Your task to perform on an android device: Go to CNN.com Image 0: 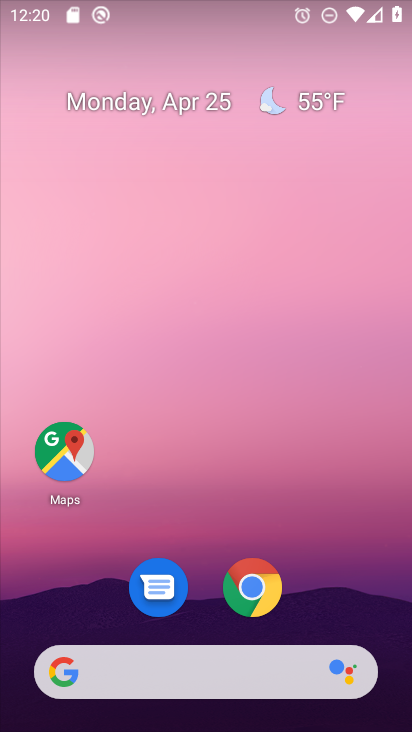
Step 0: drag from (309, 569) to (296, 55)
Your task to perform on an android device: Go to CNN.com Image 1: 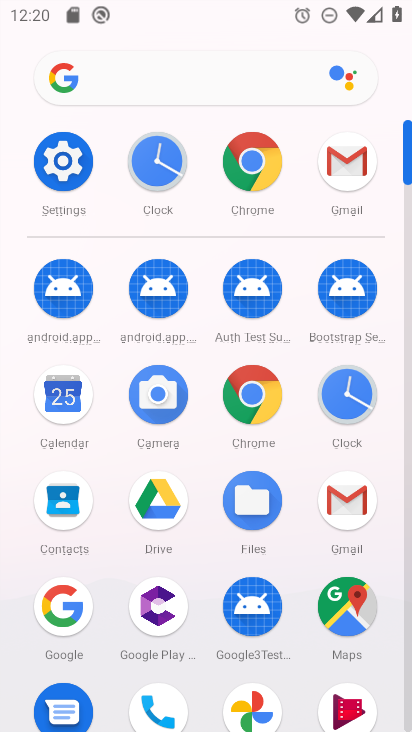
Step 1: click (234, 394)
Your task to perform on an android device: Go to CNN.com Image 2: 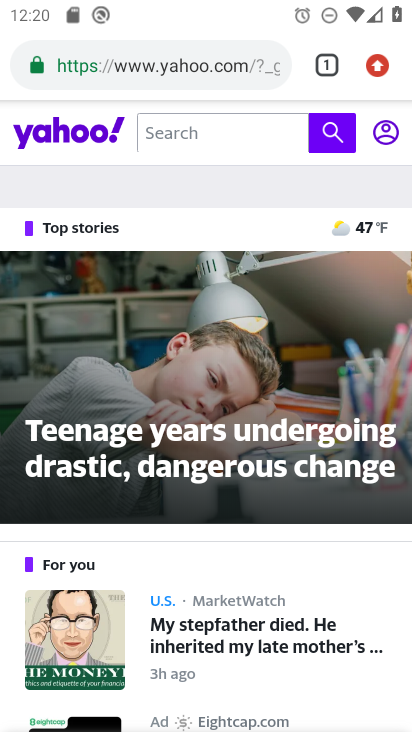
Step 2: click (205, 63)
Your task to perform on an android device: Go to CNN.com Image 3: 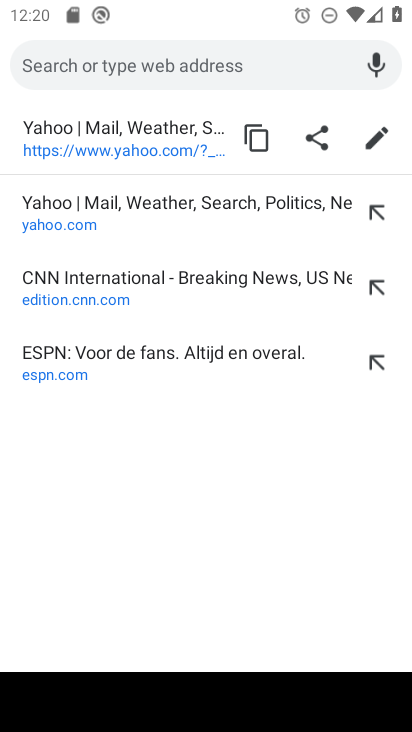
Step 3: type "cnn.com"
Your task to perform on an android device: Go to CNN.com Image 4: 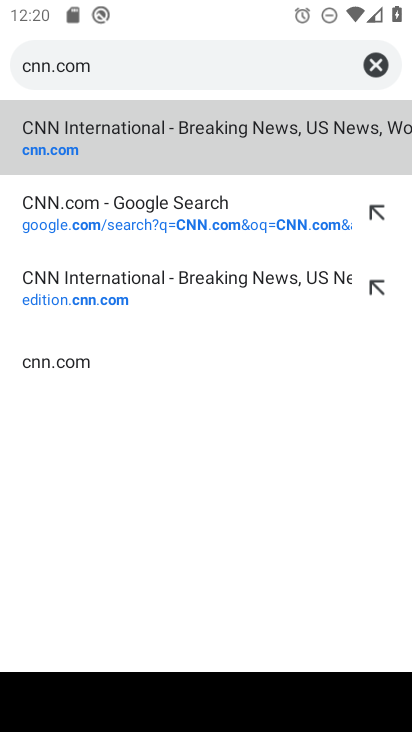
Step 4: click (73, 152)
Your task to perform on an android device: Go to CNN.com Image 5: 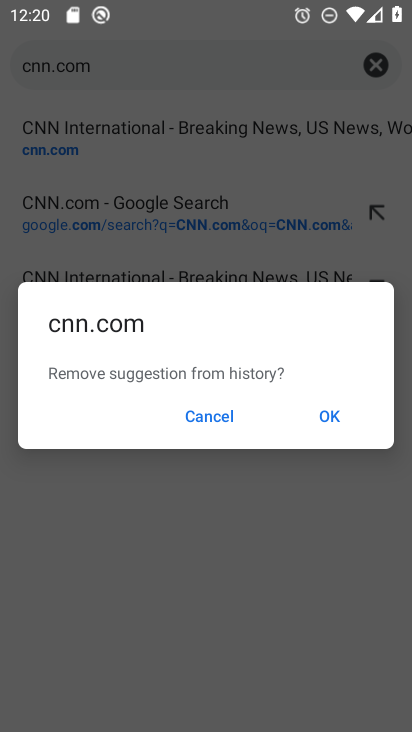
Step 5: click (214, 415)
Your task to perform on an android device: Go to CNN.com Image 6: 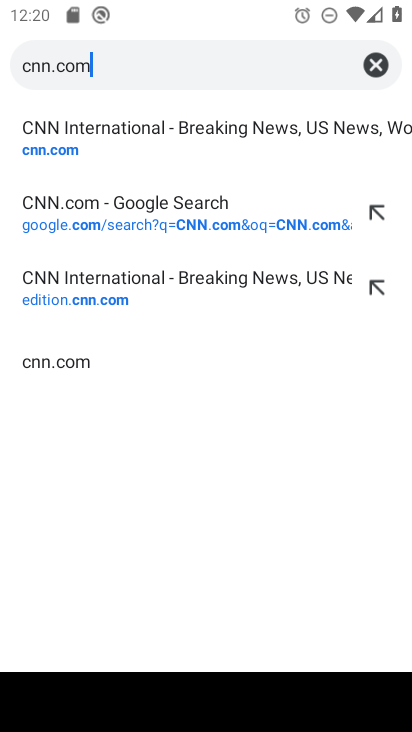
Step 6: click (33, 150)
Your task to perform on an android device: Go to CNN.com Image 7: 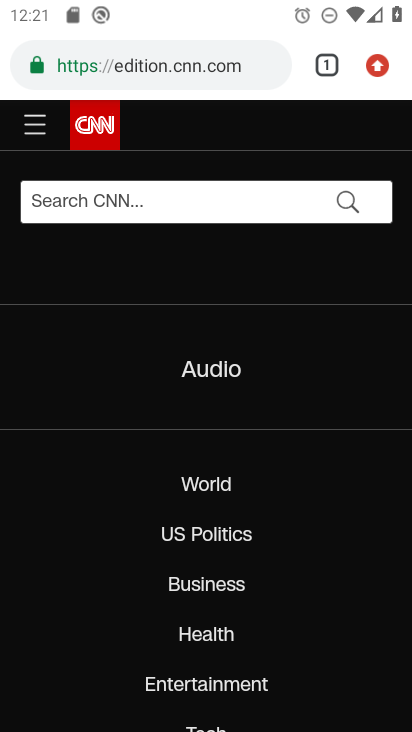
Step 7: task complete